Your task to perform on an android device: open sync settings in chrome Image 0: 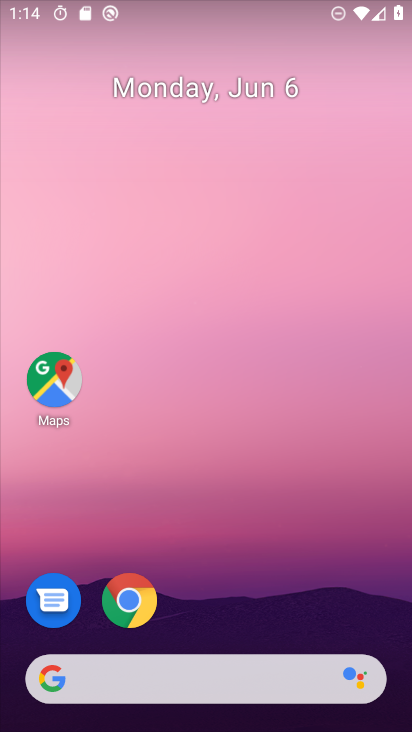
Step 0: click (126, 585)
Your task to perform on an android device: open sync settings in chrome Image 1: 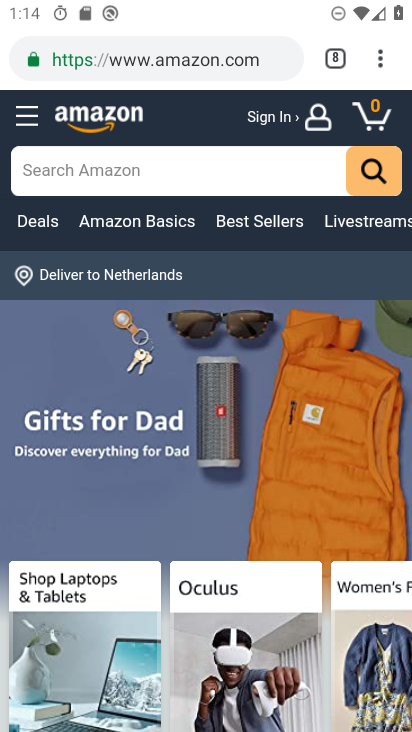
Step 1: click (380, 53)
Your task to perform on an android device: open sync settings in chrome Image 2: 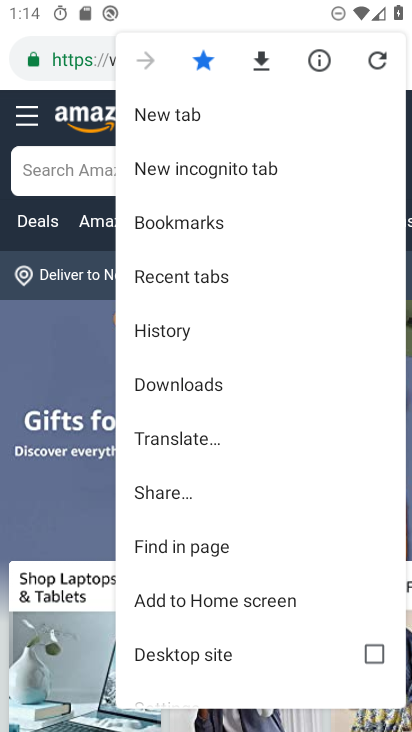
Step 2: drag from (247, 623) to (333, 351)
Your task to perform on an android device: open sync settings in chrome Image 3: 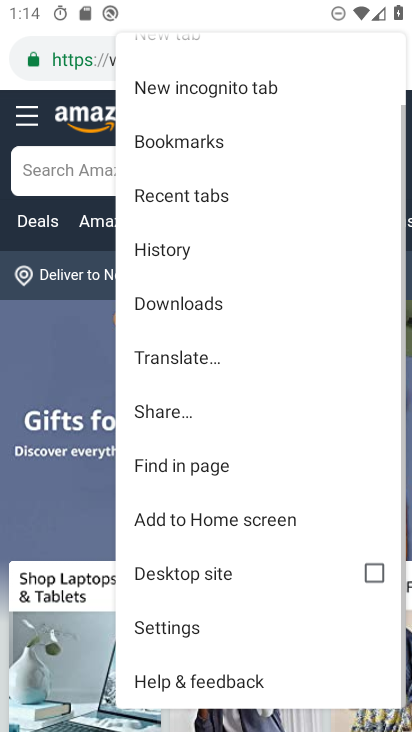
Step 3: click (201, 623)
Your task to perform on an android device: open sync settings in chrome Image 4: 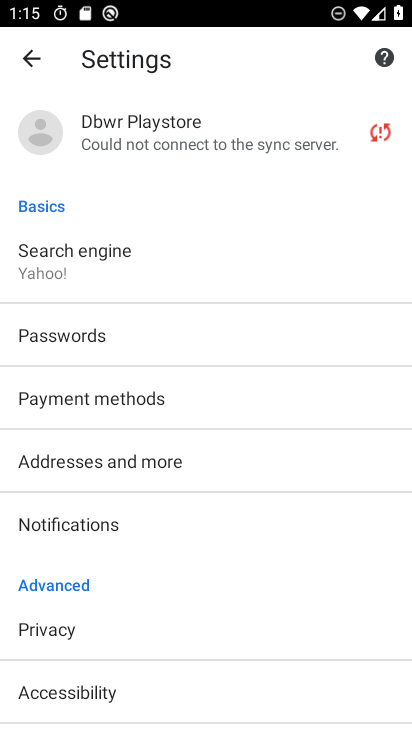
Step 4: drag from (252, 636) to (284, 224)
Your task to perform on an android device: open sync settings in chrome Image 5: 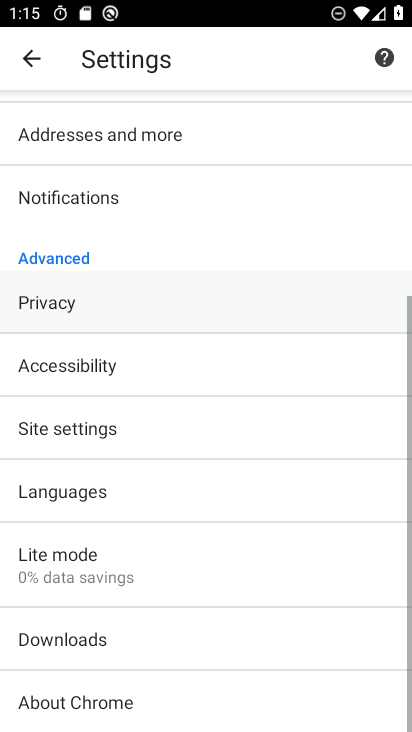
Step 5: drag from (200, 611) to (240, 563)
Your task to perform on an android device: open sync settings in chrome Image 6: 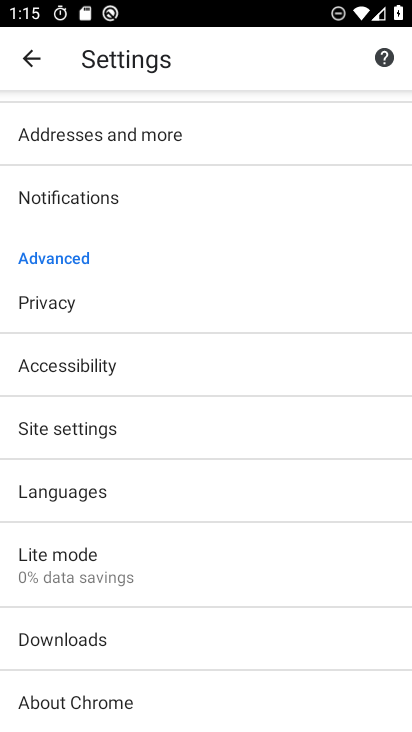
Step 6: drag from (225, 306) to (228, 615)
Your task to perform on an android device: open sync settings in chrome Image 7: 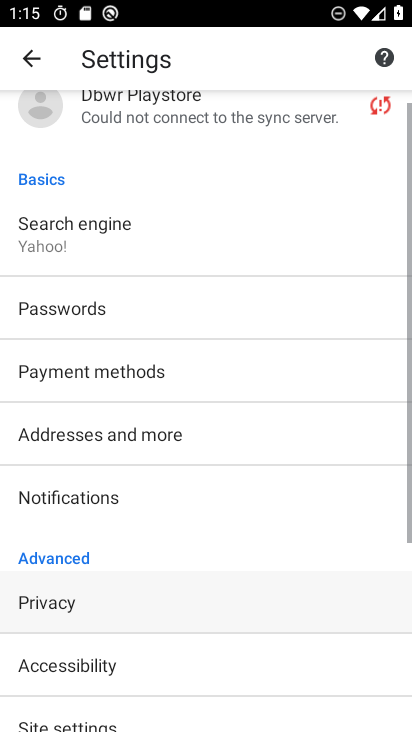
Step 7: drag from (222, 305) to (222, 630)
Your task to perform on an android device: open sync settings in chrome Image 8: 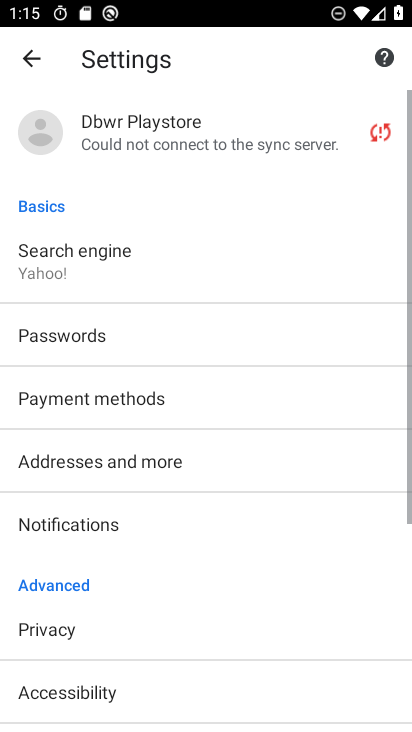
Step 8: click (245, 138)
Your task to perform on an android device: open sync settings in chrome Image 9: 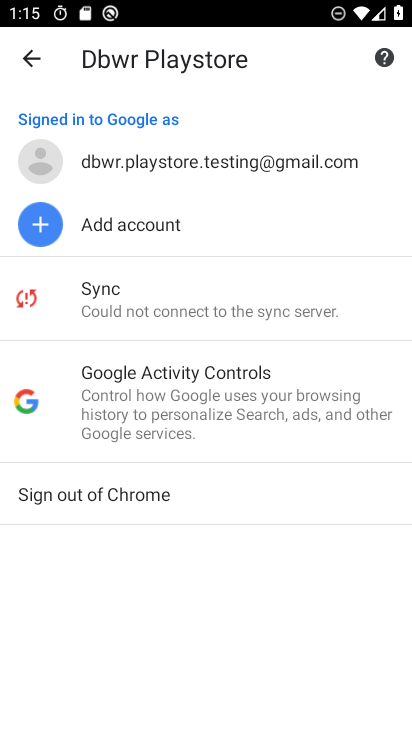
Step 9: click (142, 315)
Your task to perform on an android device: open sync settings in chrome Image 10: 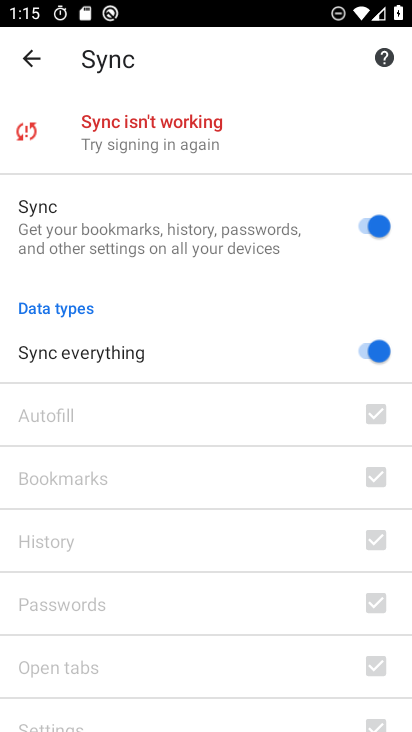
Step 10: task complete